Your task to perform on an android device: Open the calendar app, open the side menu, and click the "Day" option Image 0: 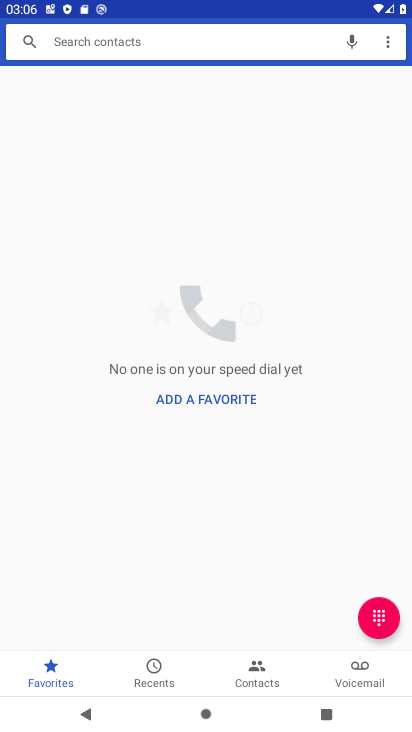
Step 0: press home button
Your task to perform on an android device: Open the calendar app, open the side menu, and click the "Day" option Image 1: 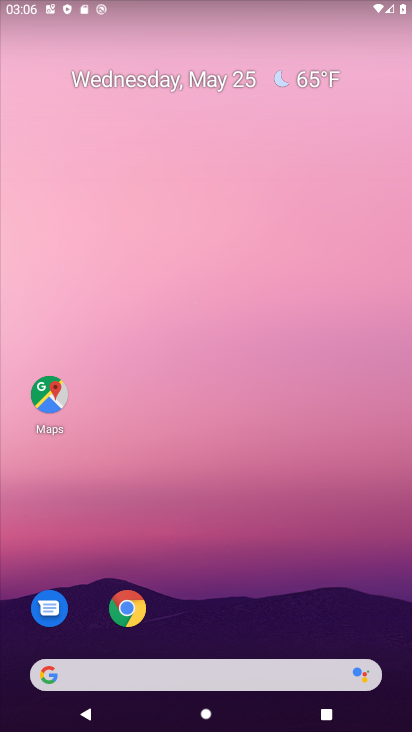
Step 1: drag from (271, 614) to (244, 40)
Your task to perform on an android device: Open the calendar app, open the side menu, and click the "Day" option Image 2: 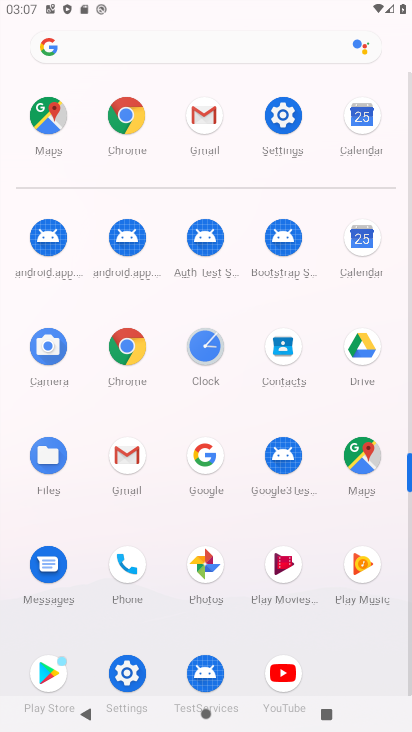
Step 2: click (365, 124)
Your task to perform on an android device: Open the calendar app, open the side menu, and click the "Day" option Image 3: 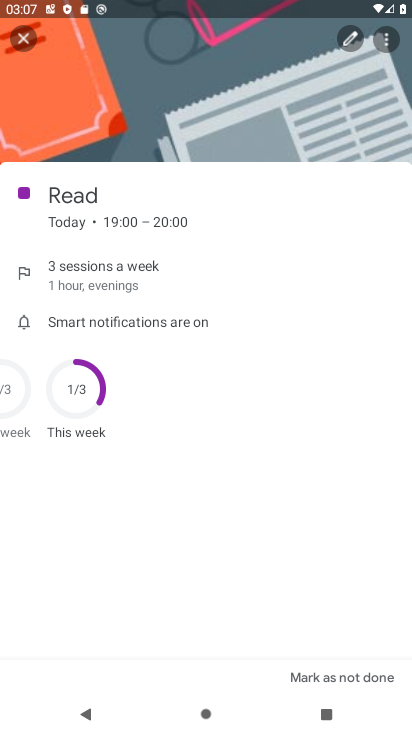
Step 3: click (25, 41)
Your task to perform on an android device: Open the calendar app, open the side menu, and click the "Day" option Image 4: 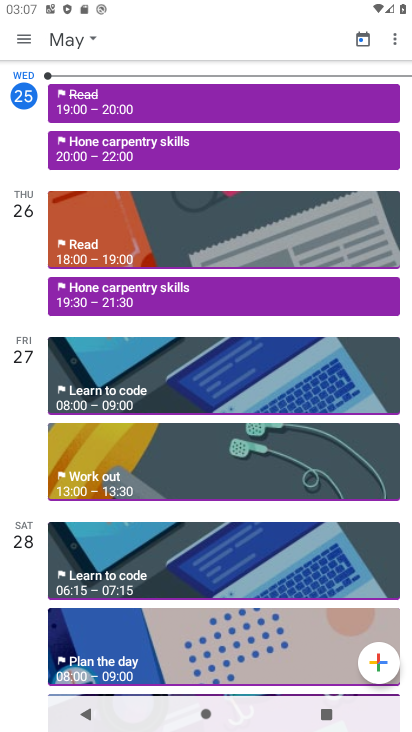
Step 4: click (24, 44)
Your task to perform on an android device: Open the calendar app, open the side menu, and click the "Day" option Image 5: 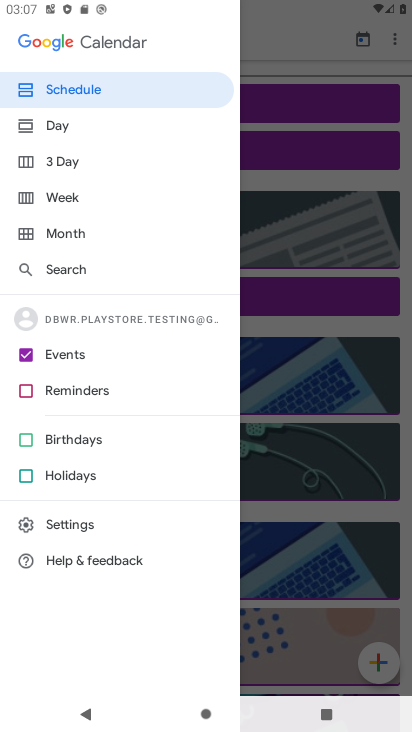
Step 5: click (46, 125)
Your task to perform on an android device: Open the calendar app, open the side menu, and click the "Day" option Image 6: 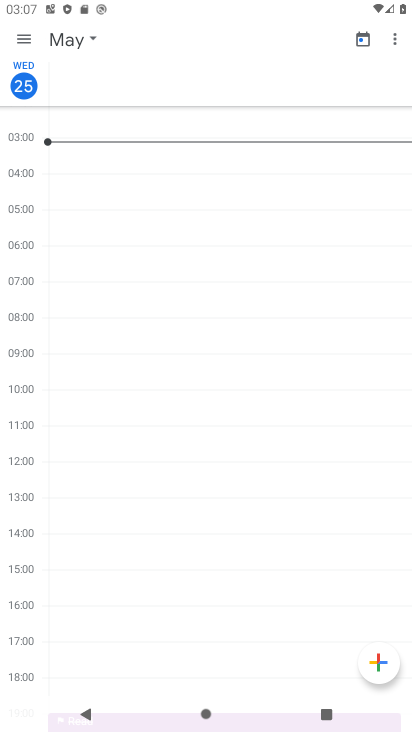
Step 6: task complete